Your task to perform on an android device: Open Reddit.com Image 0: 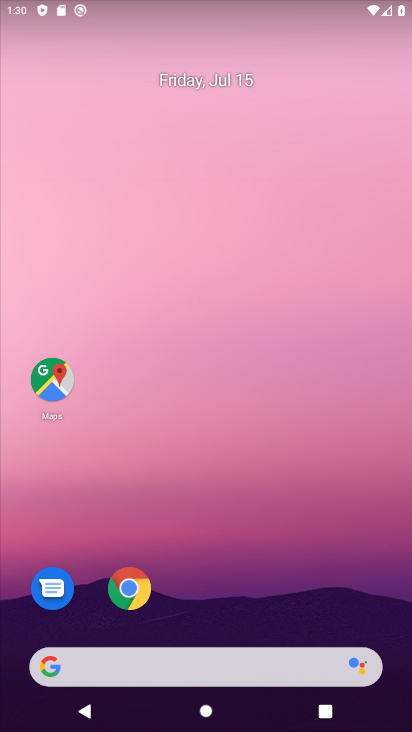
Step 0: click (131, 591)
Your task to perform on an android device: Open Reddit.com Image 1: 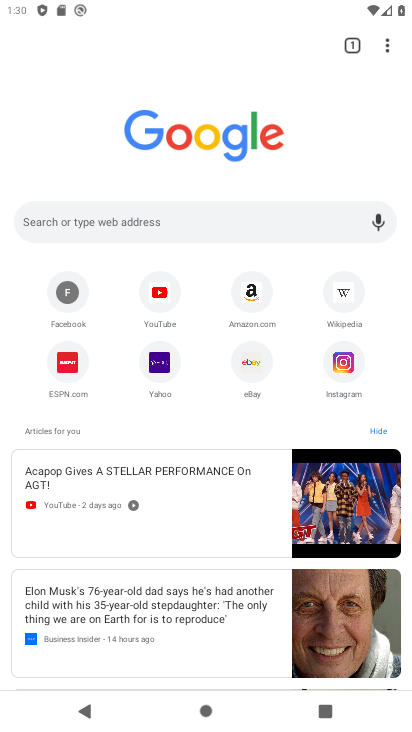
Step 1: click (200, 215)
Your task to perform on an android device: Open Reddit.com Image 2: 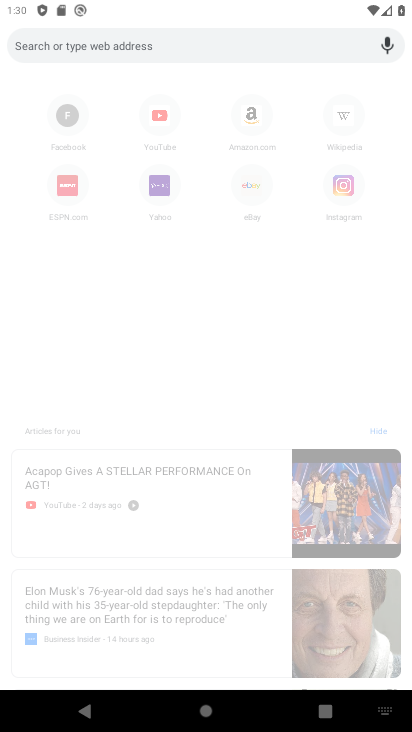
Step 2: type "Reddit.com"
Your task to perform on an android device: Open Reddit.com Image 3: 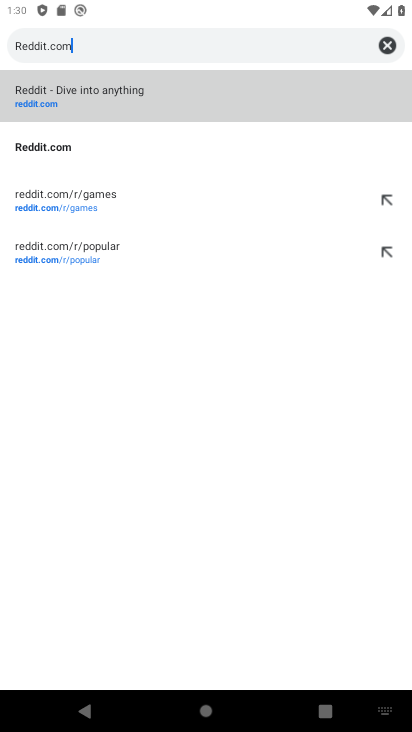
Step 3: click (49, 150)
Your task to perform on an android device: Open Reddit.com Image 4: 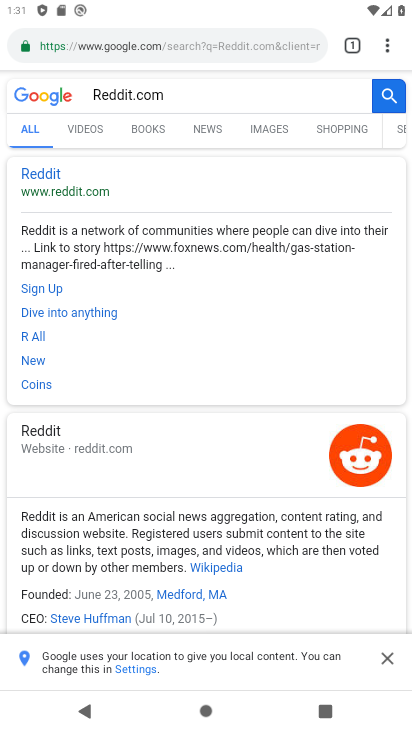
Step 4: click (86, 191)
Your task to perform on an android device: Open Reddit.com Image 5: 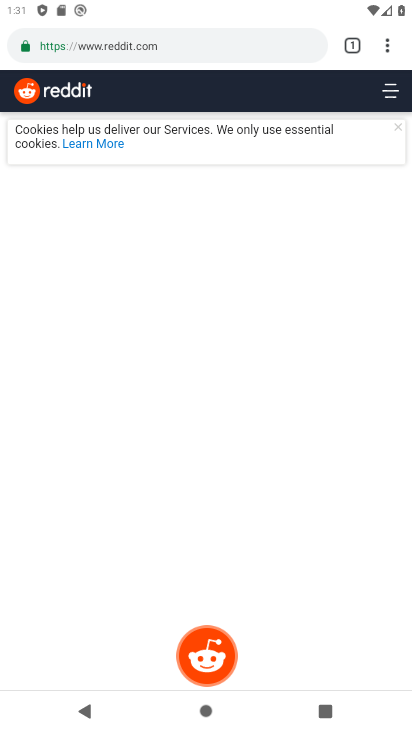
Step 5: task complete